Your task to perform on an android device: open the mobile data screen to see how much data has been used Image 0: 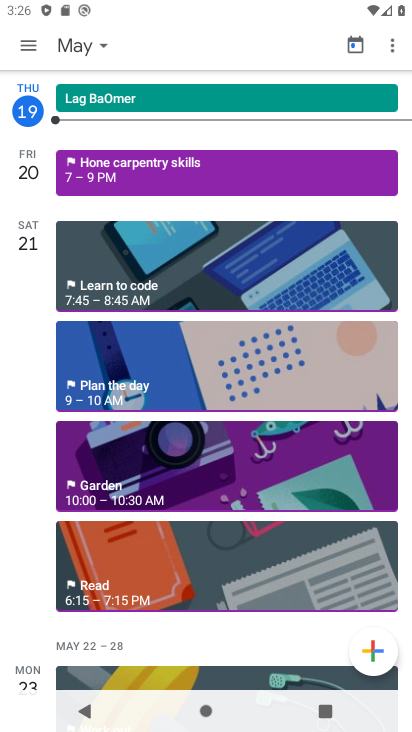
Step 0: press home button
Your task to perform on an android device: open the mobile data screen to see how much data has been used Image 1: 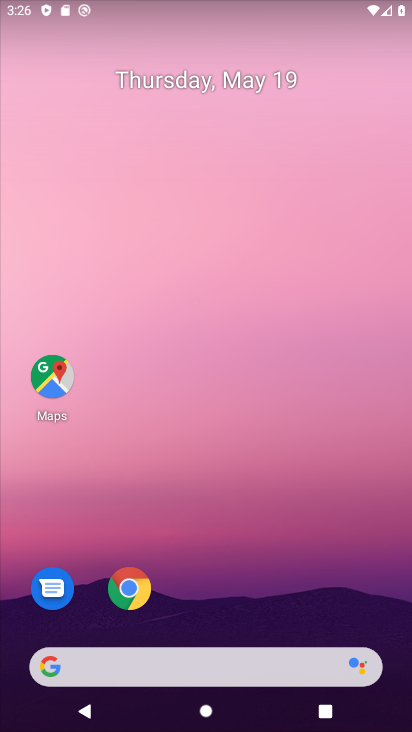
Step 1: drag from (223, 535) to (323, 9)
Your task to perform on an android device: open the mobile data screen to see how much data has been used Image 2: 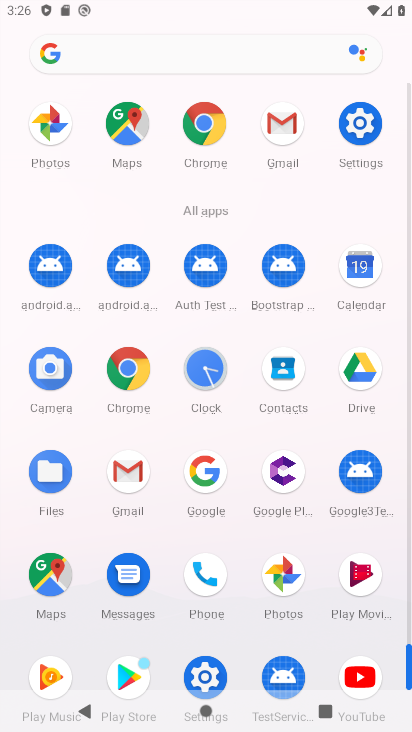
Step 2: click (207, 679)
Your task to perform on an android device: open the mobile data screen to see how much data has been used Image 3: 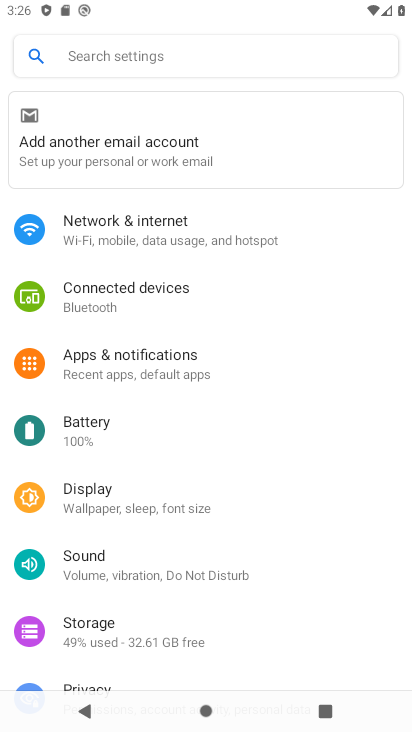
Step 3: click (153, 253)
Your task to perform on an android device: open the mobile data screen to see how much data has been used Image 4: 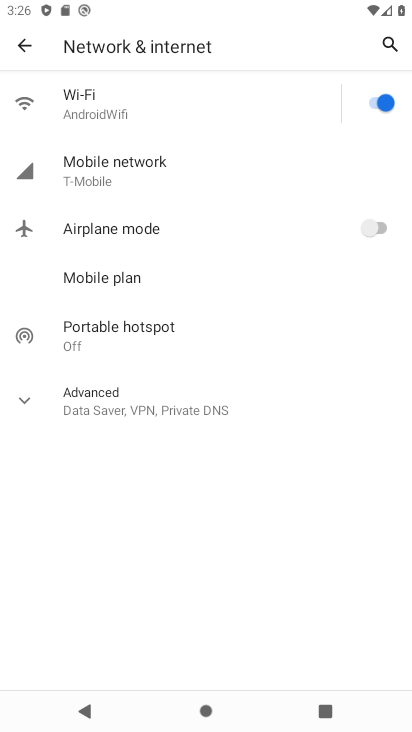
Step 4: click (128, 183)
Your task to perform on an android device: open the mobile data screen to see how much data has been used Image 5: 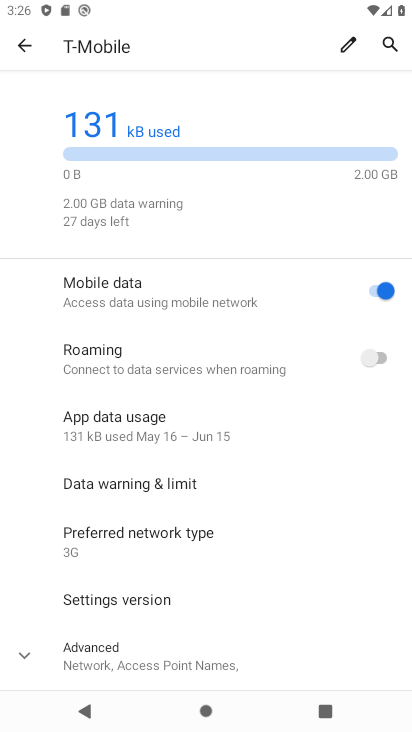
Step 5: click (162, 438)
Your task to perform on an android device: open the mobile data screen to see how much data has been used Image 6: 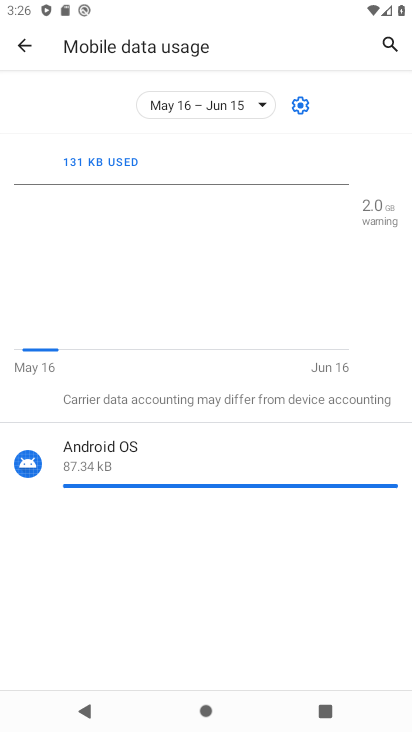
Step 6: task complete